Your task to perform on an android device: Open Youtube and go to the subscriptions tab Image 0: 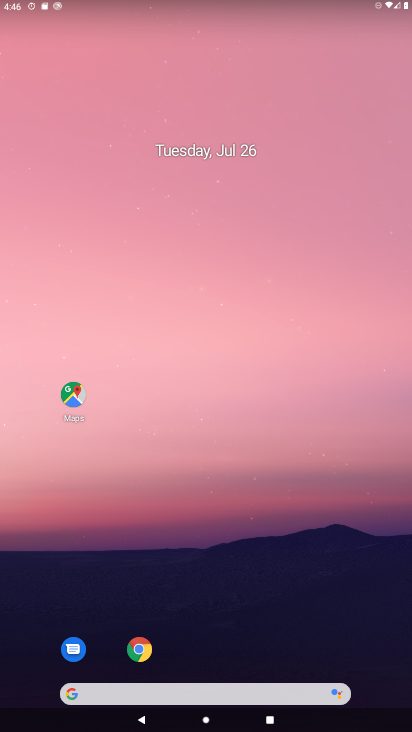
Step 0: drag from (386, 655) to (189, 9)
Your task to perform on an android device: Open Youtube and go to the subscriptions tab Image 1: 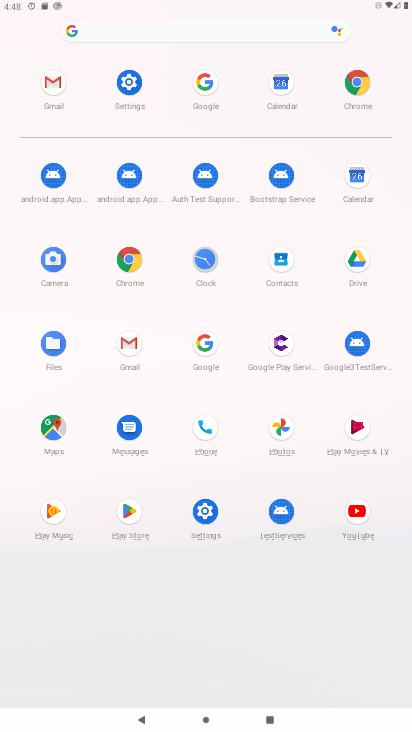
Step 1: click (350, 506)
Your task to perform on an android device: Open Youtube and go to the subscriptions tab Image 2: 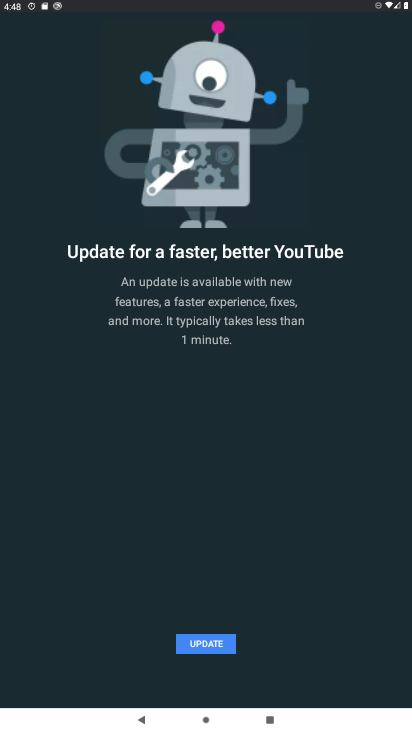
Step 2: task complete